Your task to perform on an android device: Go to wifi settings Image 0: 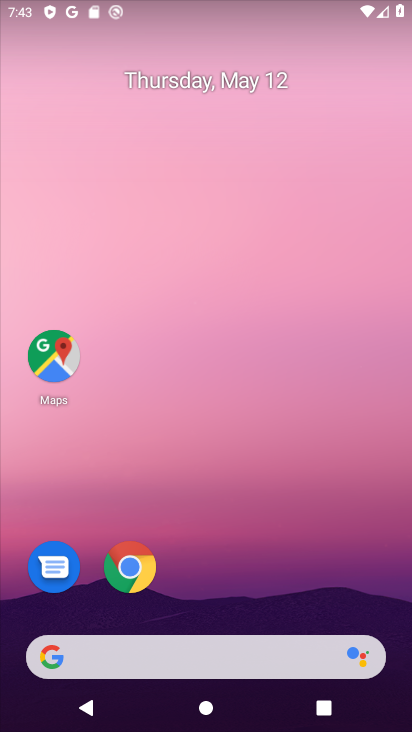
Step 0: drag from (231, 561) to (231, 127)
Your task to perform on an android device: Go to wifi settings Image 1: 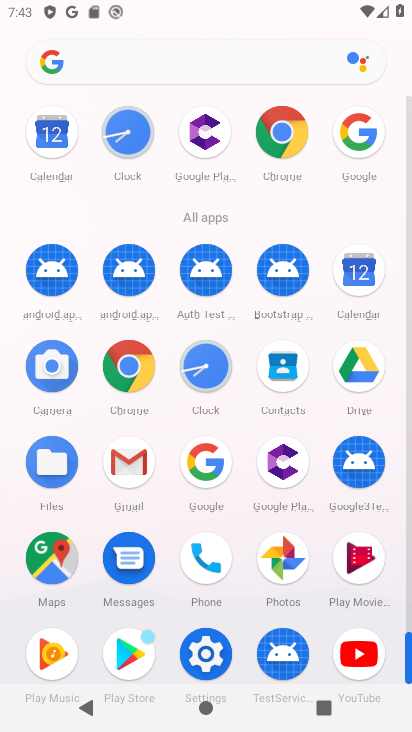
Step 1: drag from (254, 524) to (256, 319)
Your task to perform on an android device: Go to wifi settings Image 2: 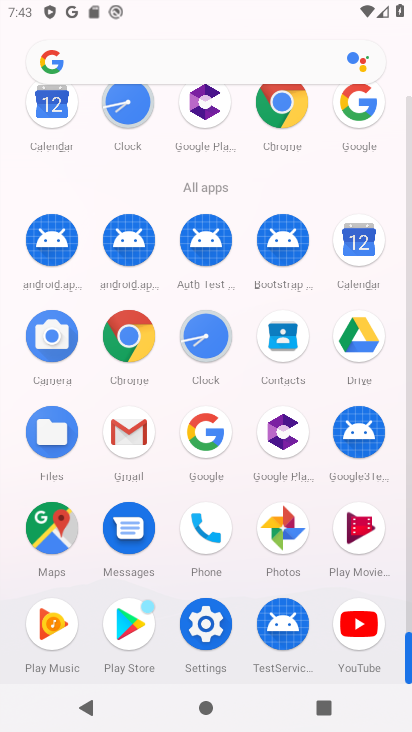
Step 2: click (217, 625)
Your task to perform on an android device: Go to wifi settings Image 3: 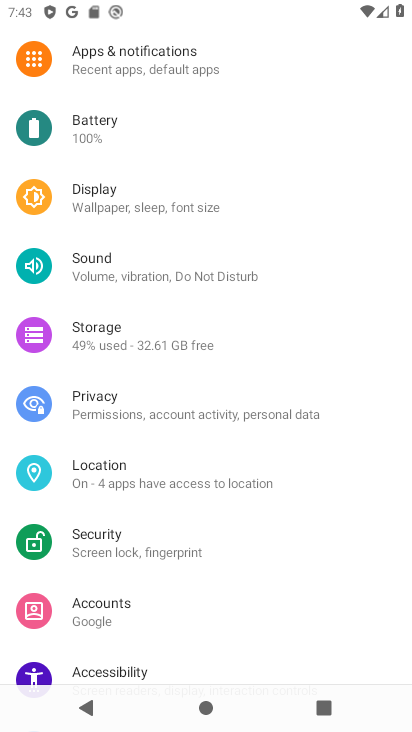
Step 3: drag from (250, 191) to (143, 705)
Your task to perform on an android device: Go to wifi settings Image 4: 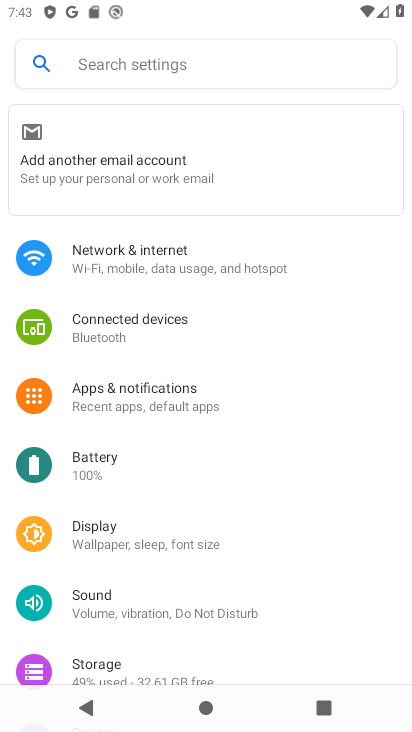
Step 4: click (243, 269)
Your task to perform on an android device: Go to wifi settings Image 5: 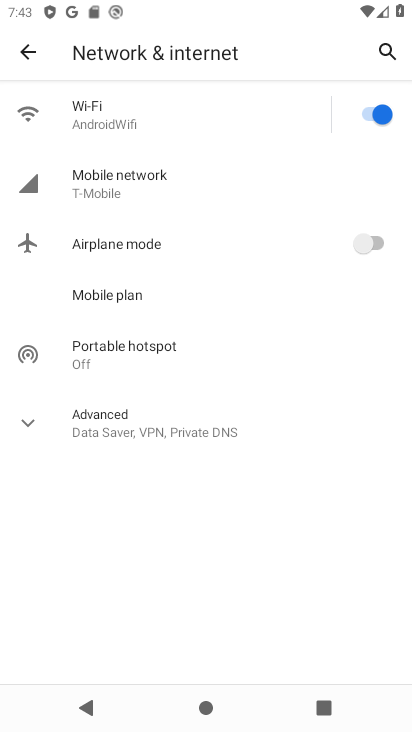
Step 5: click (225, 124)
Your task to perform on an android device: Go to wifi settings Image 6: 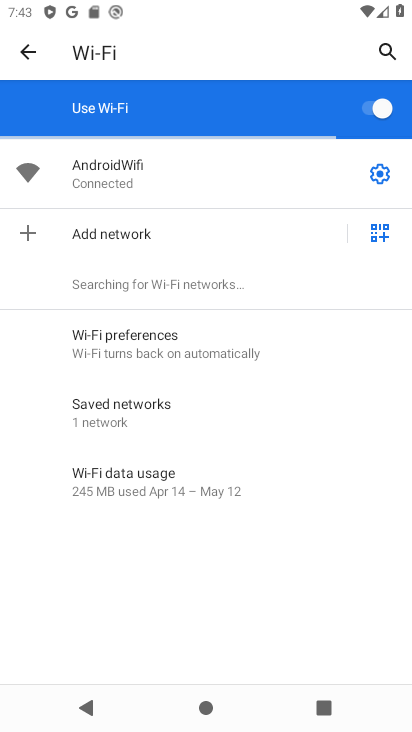
Step 6: task complete